Your task to perform on an android device: turn on wifi Image 0: 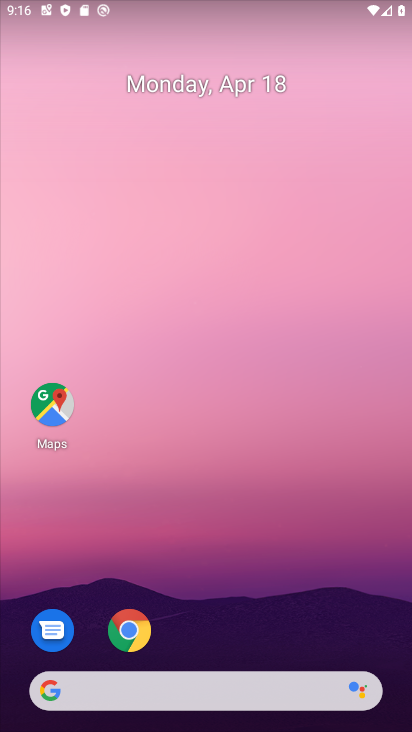
Step 0: drag from (325, 531) to (307, 9)
Your task to perform on an android device: turn on wifi Image 1: 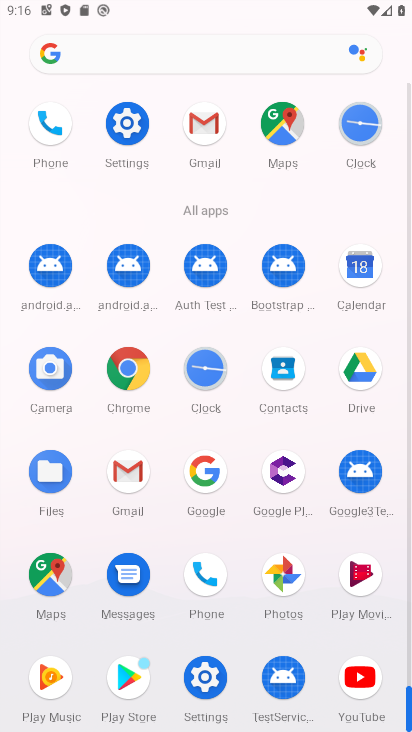
Step 1: click (134, 130)
Your task to perform on an android device: turn on wifi Image 2: 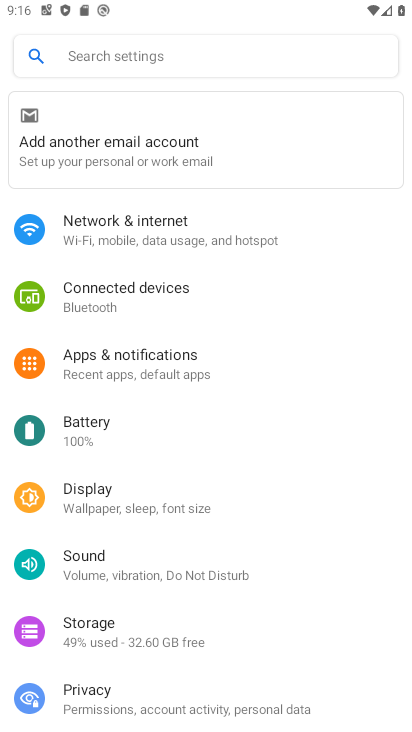
Step 2: click (187, 222)
Your task to perform on an android device: turn on wifi Image 3: 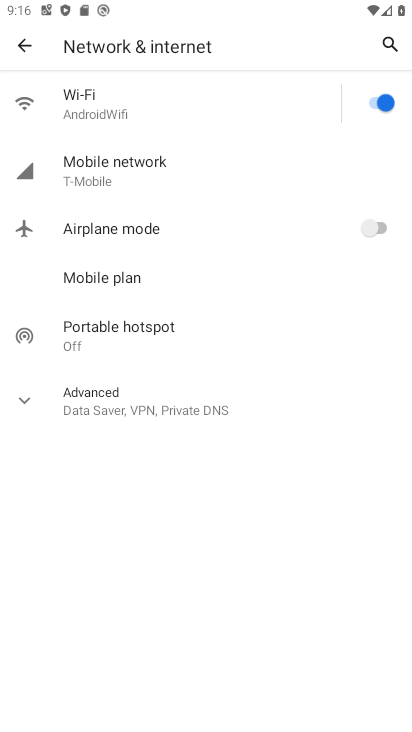
Step 3: task complete